Your task to perform on an android device: open app "LinkedIn" Image 0: 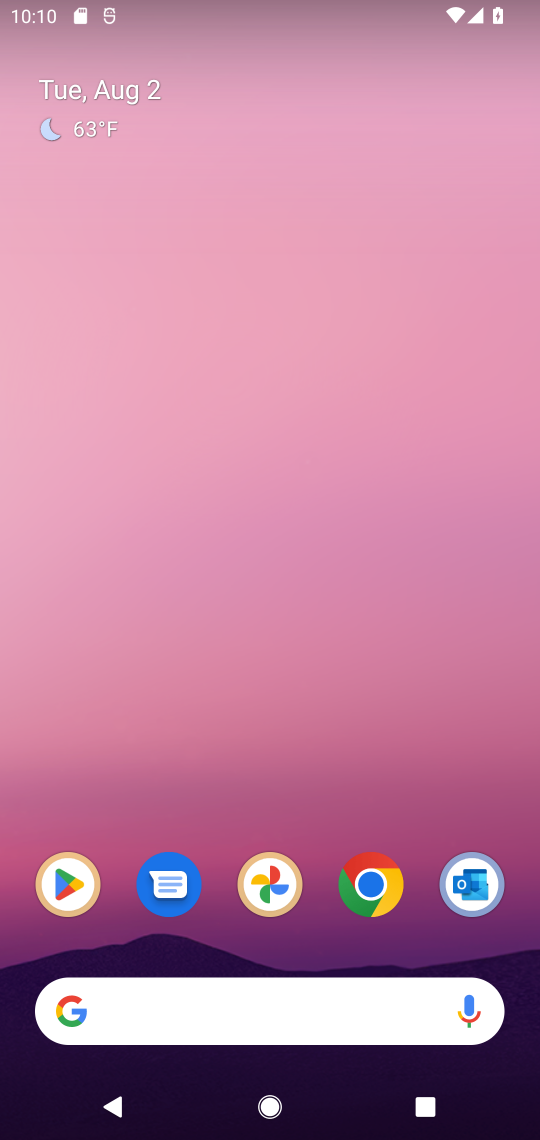
Step 0: click (73, 879)
Your task to perform on an android device: open app "LinkedIn" Image 1: 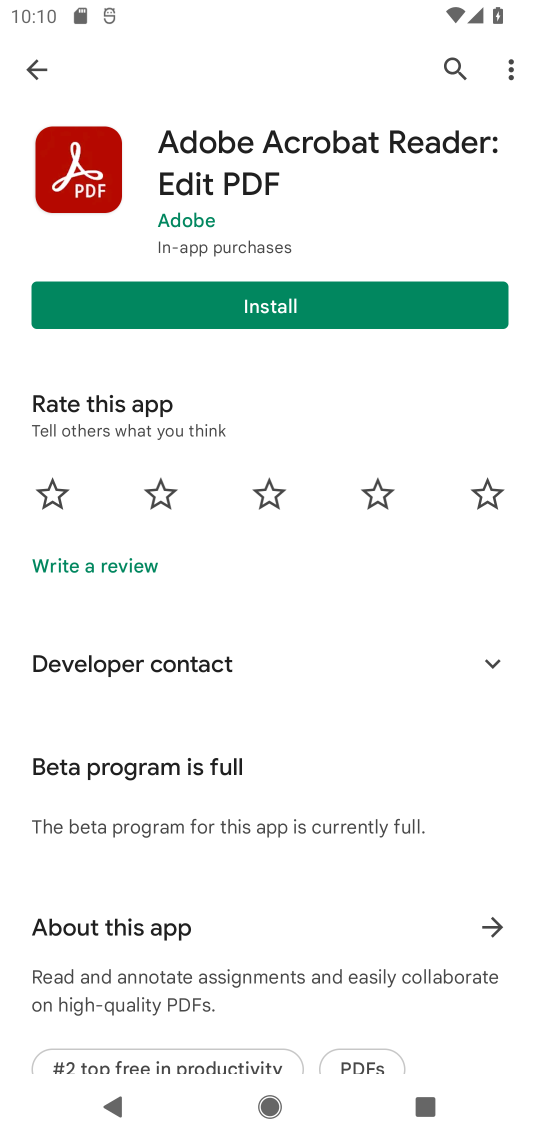
Step 1: click (47, 65)
Your task to perform on an android device: open app "LinkedIn" Image 2: 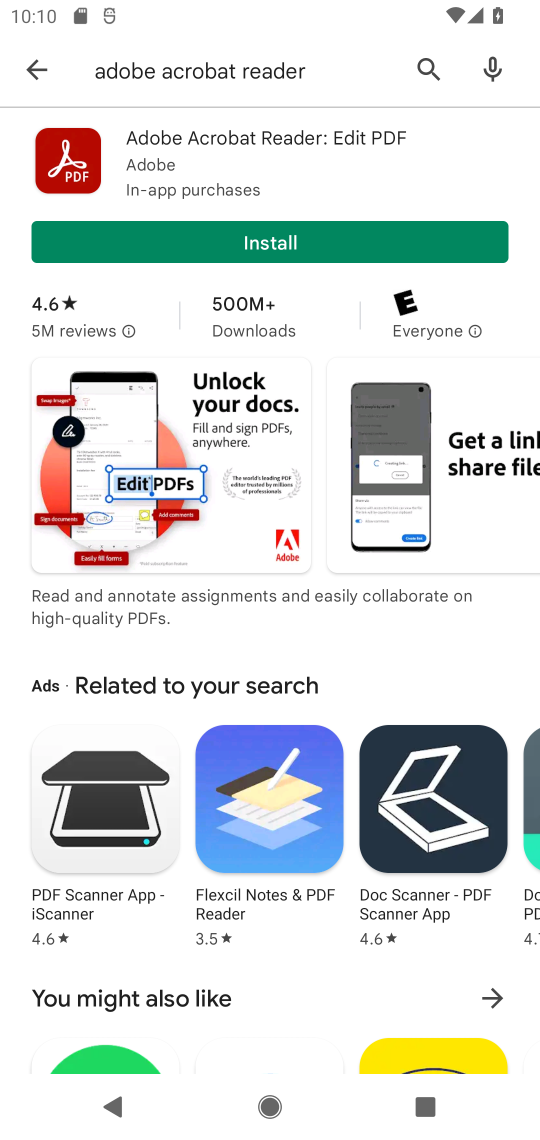
Step 2: click (243, 78)
Your task to perform on an android device: open app "LinkedIn" Image 3: 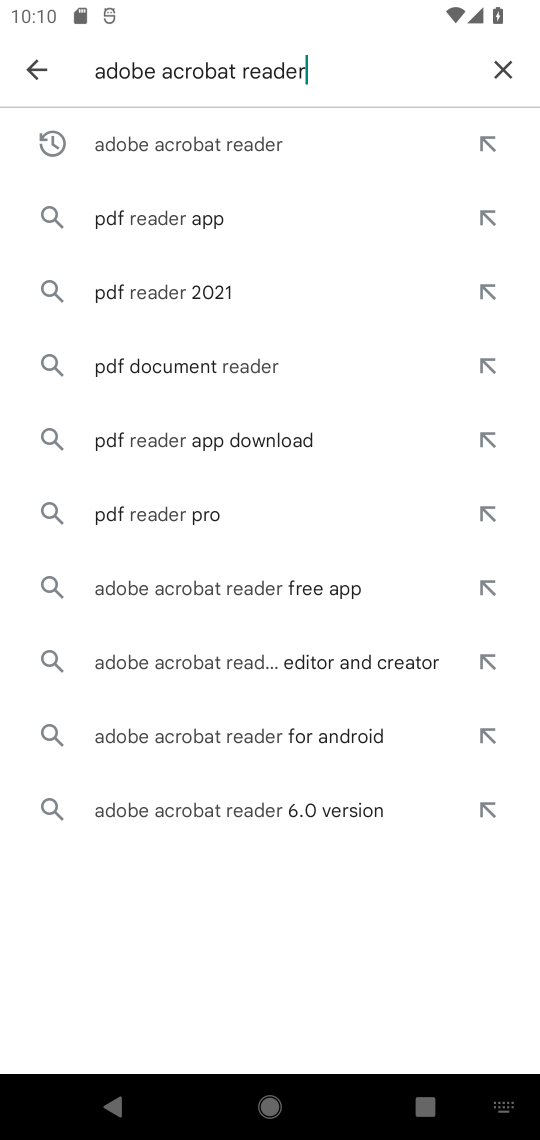
Step 3: click (503, 64)
Your task to perform on an android device: open app "LinkedIn" Image 4: 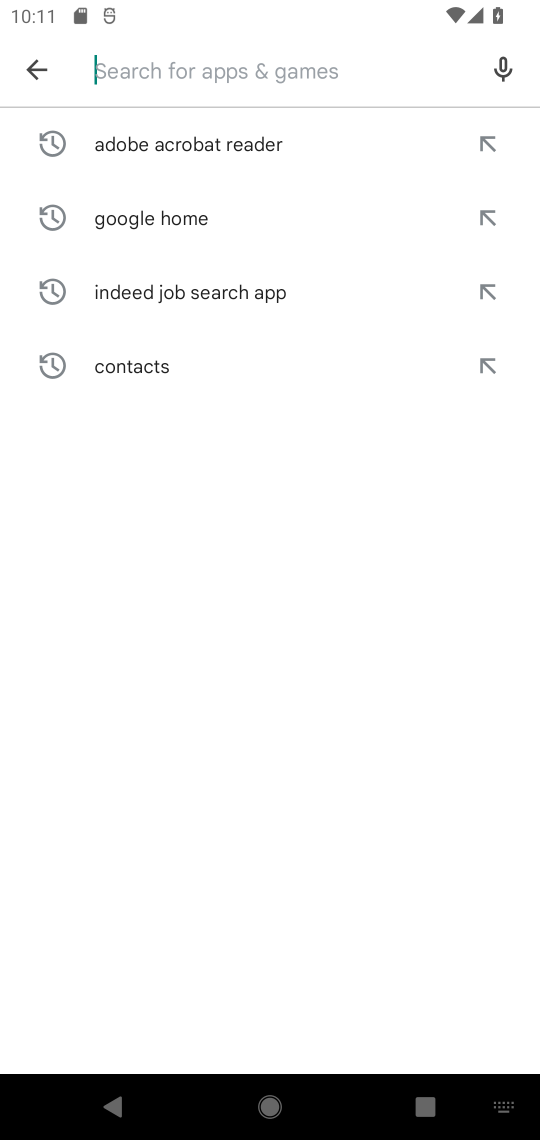
Step 4: type "Linkedin"
Your task to perform on an android device: open app "LinkedIn" Image 5: 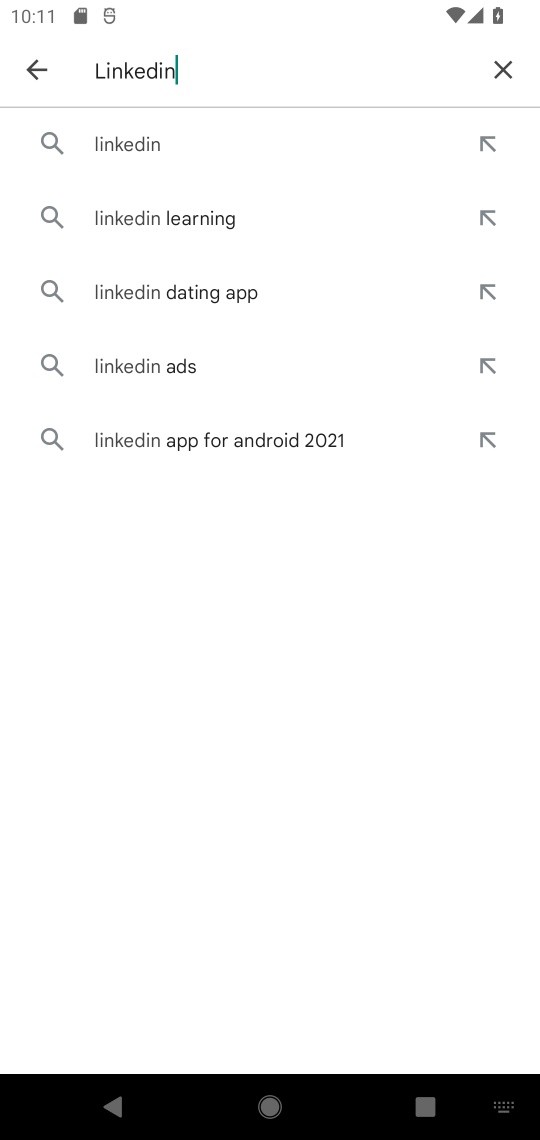
Step 5: click (89, 141)
Your task to perform on an android device: open app "LinkedIn" Image 6: 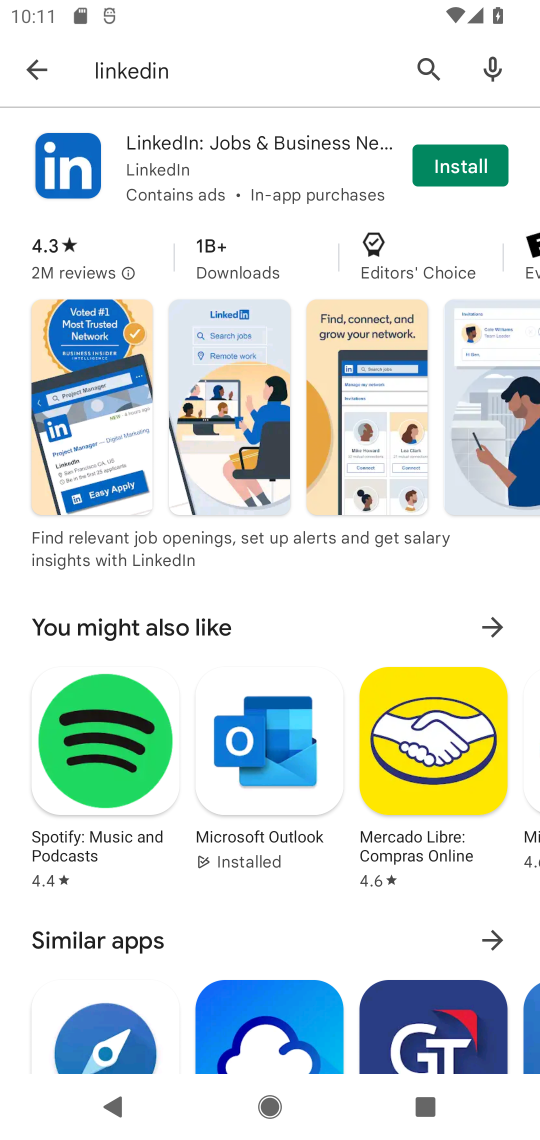
Step 6: task complete